Your task to perform on an android device: Is it going to rain this weekend? Image 0: 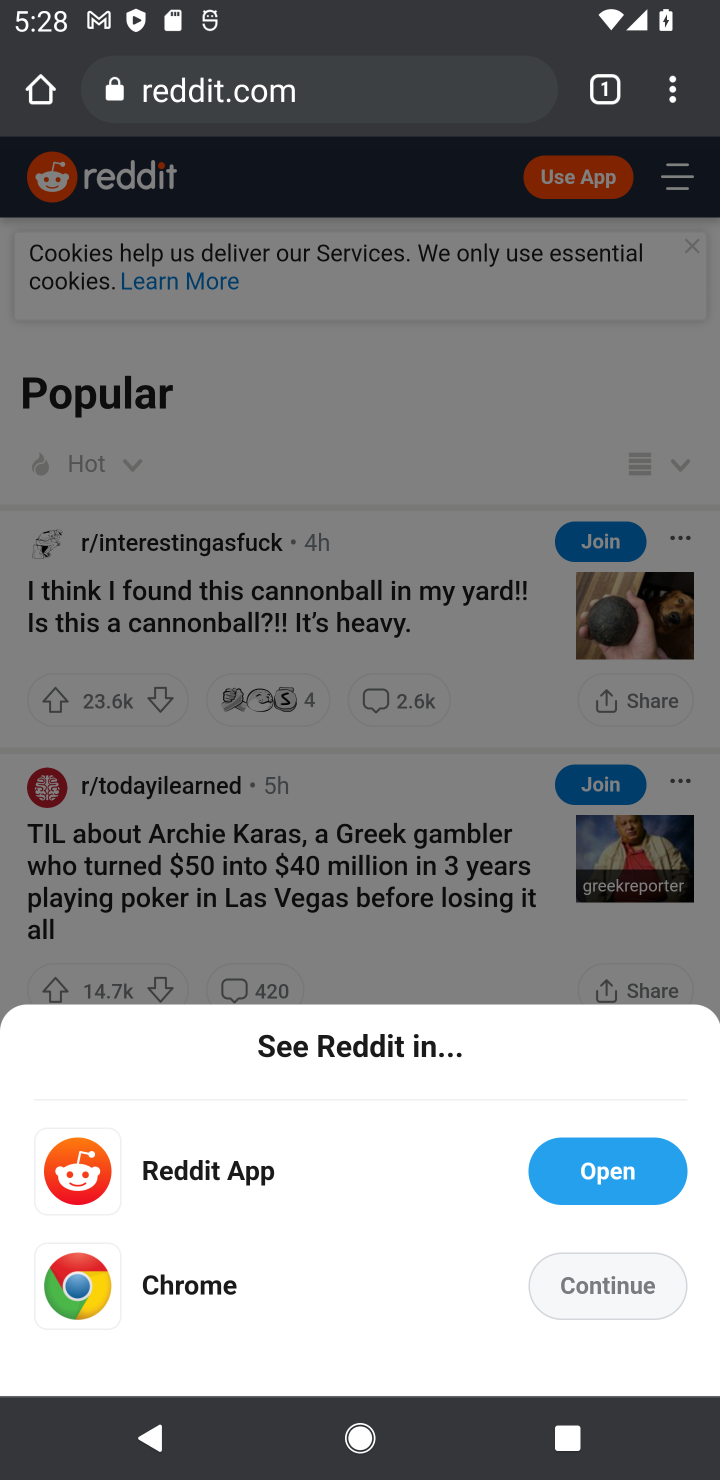
Step 0: task complete